Your task to perform on an android device: uninstall "Adobe Acrobat Reader" Image 0: 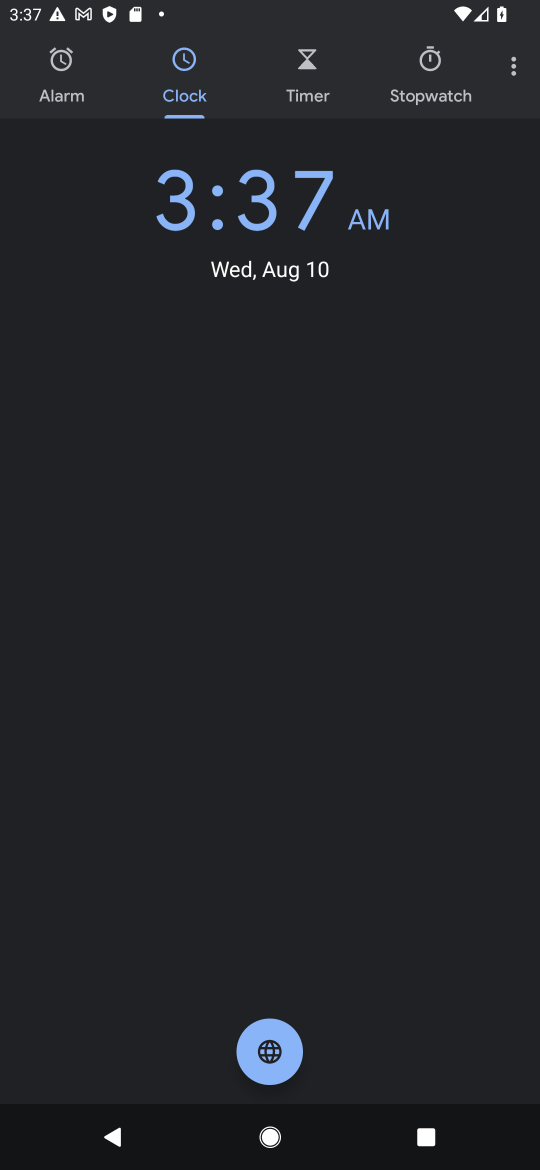
Step 0: press home button
Your task to perform on an android device: uninstall "Adobe Acrobat Reader" Image 1: 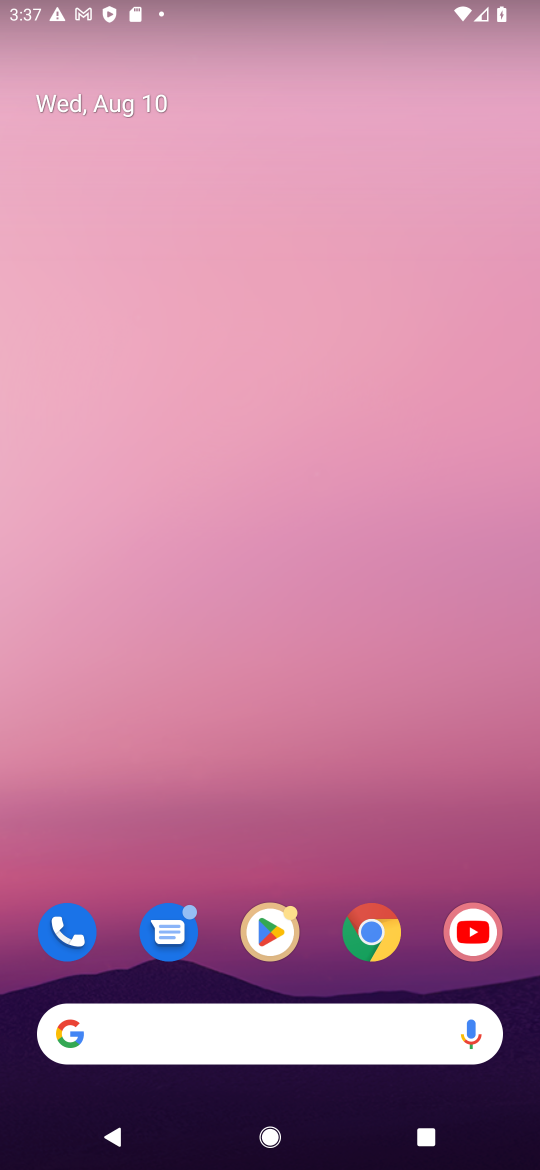
Step 1: drag from (305, 1046) to (302, 62)
Your task to perform on an android device: uninstall "Adobe Acrobat Reader" Image 2: 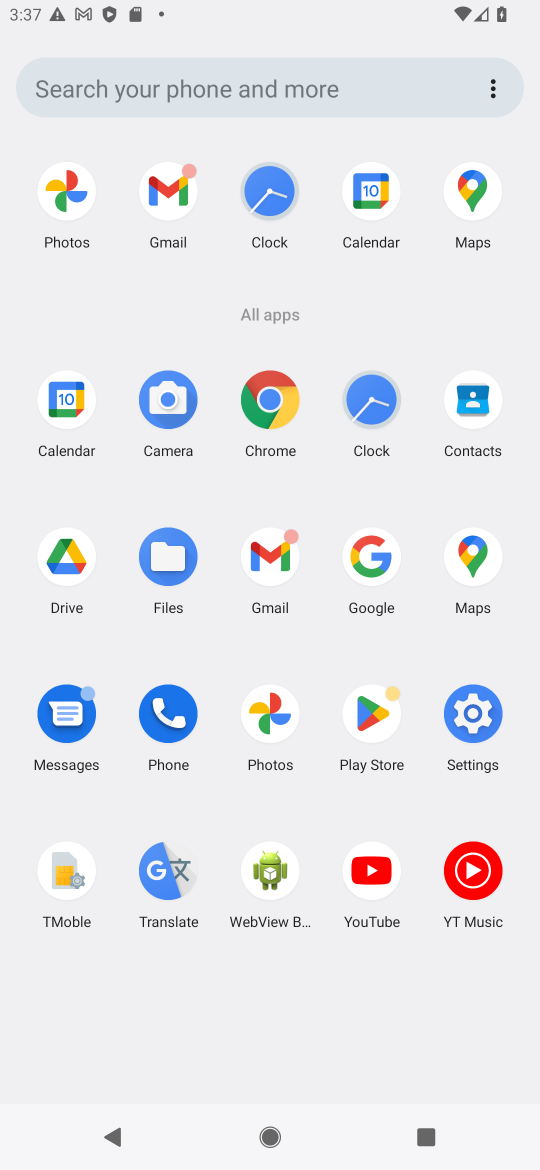
Step 2: click (376, 721)
Your task to perform on an android device: uninstall "Adobe Acrobat Reader" Image 3: 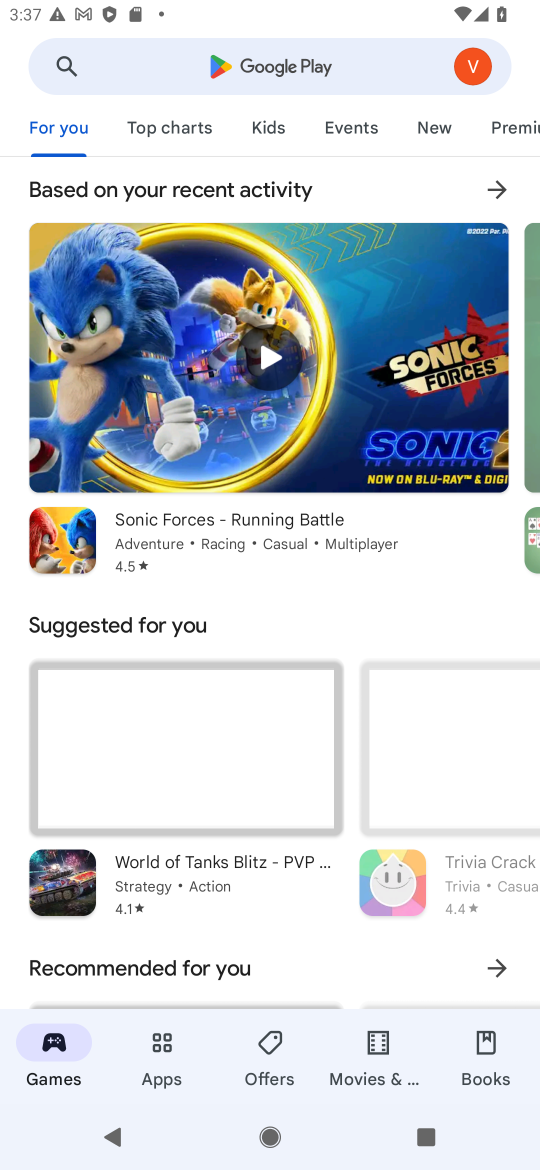
Step 3: click (221, 70)
Your task to perform on an android device: uninstall "Adobe Acrobat Reader" Image 4: 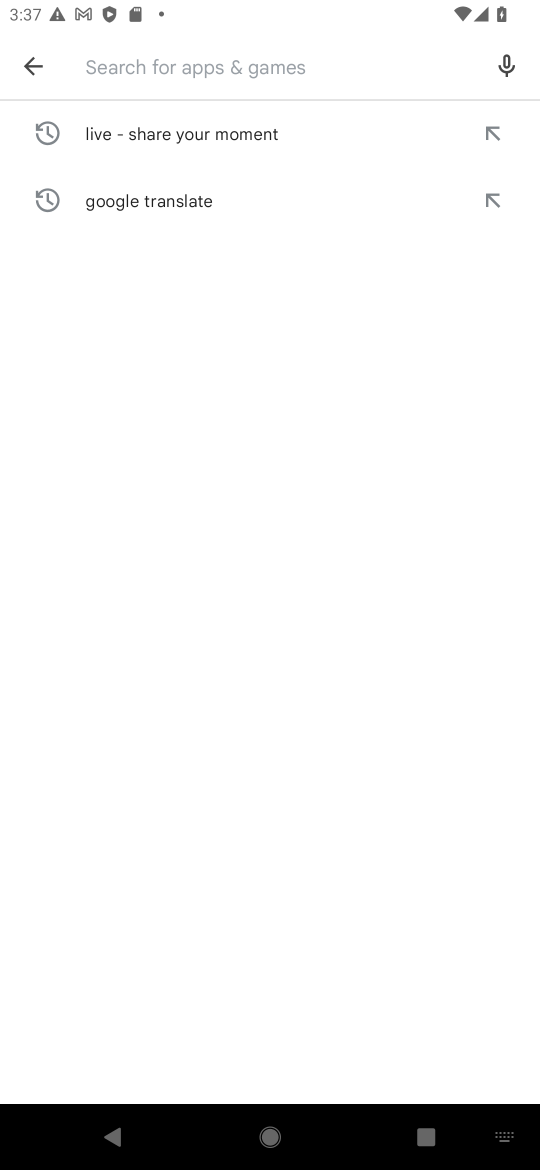
Step 4: type "Adobe Acrobat Reader"
Your task to perform on an android device: uninstall "Adobe Acrobat Reader" Image 5: 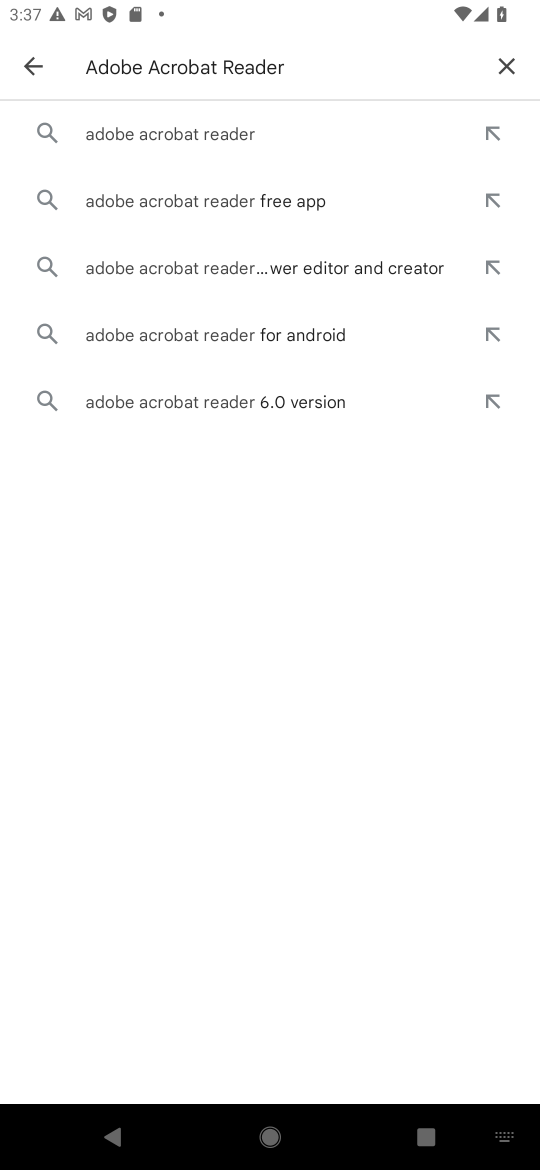
Step 5: click (193, 130)
Your task to perform on an android device: uninstall "Adobe Acrobat Reader" Image 6: 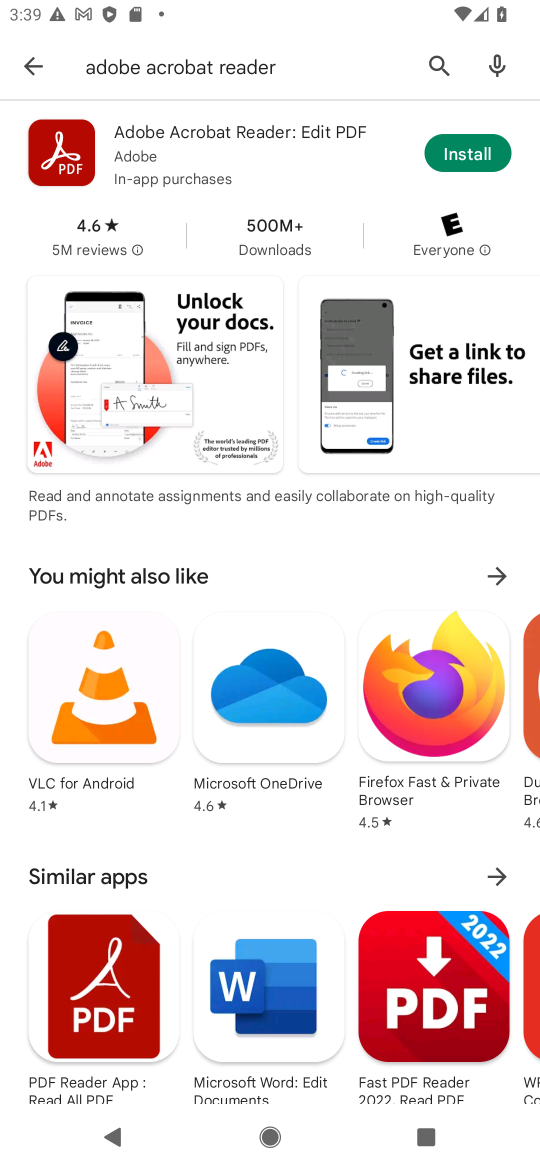
Step 6: task complete